Your task to perform on an android device: Set the phone to "Do not disturb". Image 0: 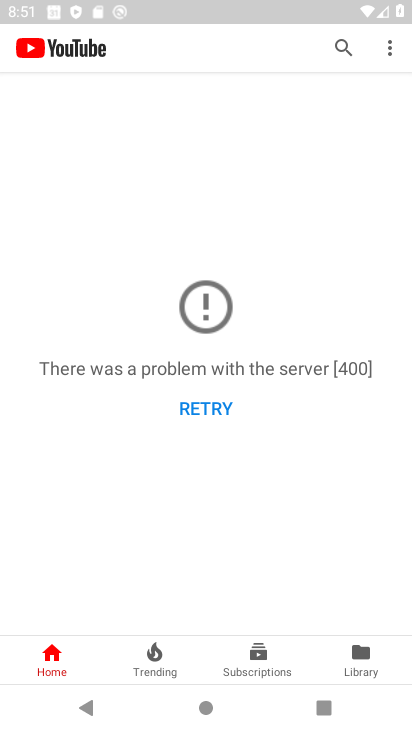
Step 0: press back button
Your task to perform on an android device: Set the phone to "Do not disturb". Image 1: 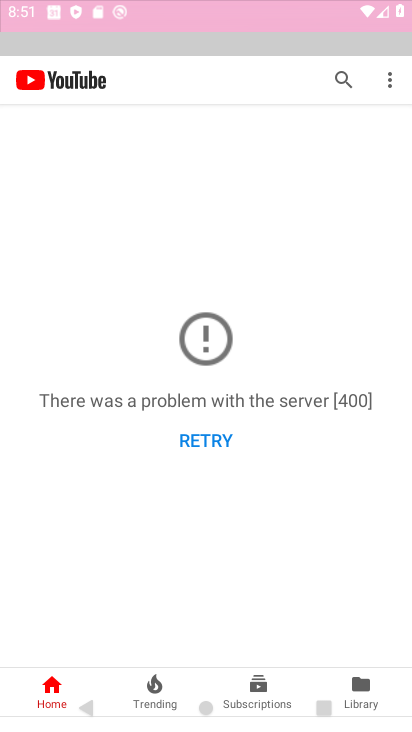
Step 1: press home button
Your task to perform on an android device: Set the phone to "Do not disturb". Image 2: 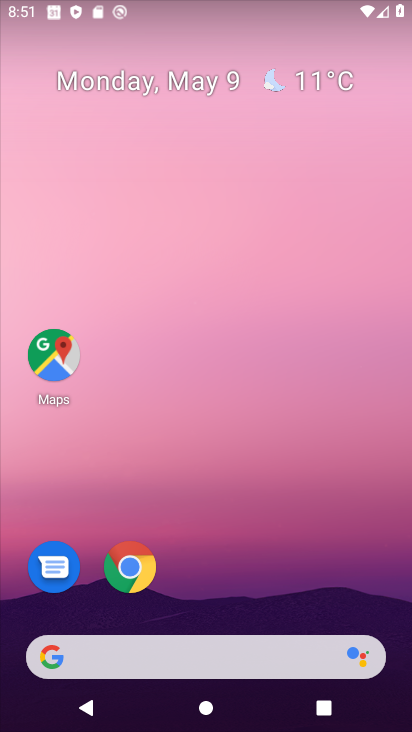
Step 2: drag from (192, 621) to (314, 40)
Your task to perform on an android device: Set the phone to "Do not disturb". Image 3: 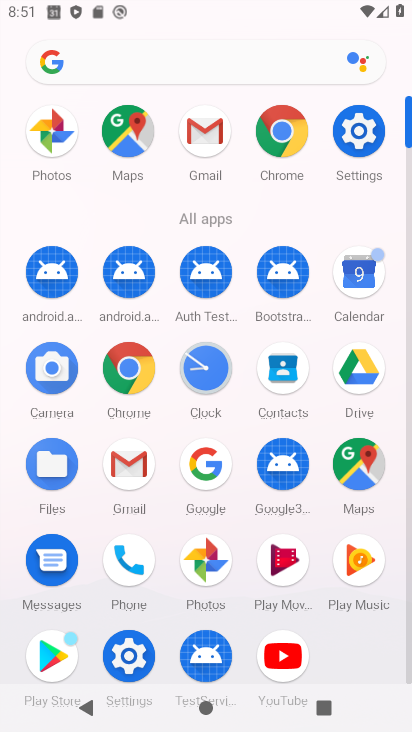
Step 3: click (129, 663)
Your task to perform on an android device: Set the phone to "Do not disturb". Image 4: 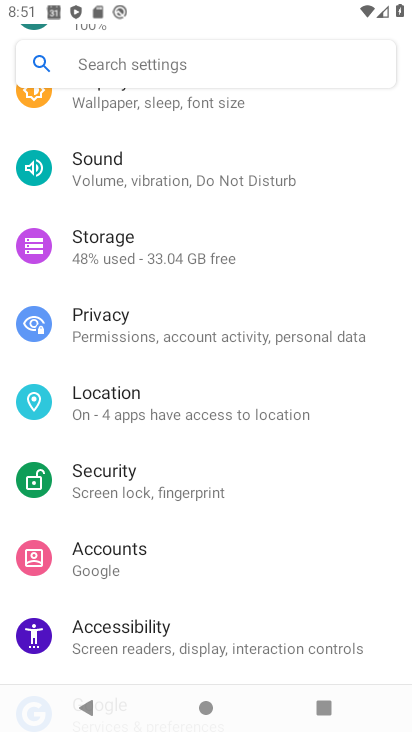
Step 4: drag from (213, 122) to (213, 462)
Your task to perform on an android device: Set the phone to "Do not disturb". Image 5: 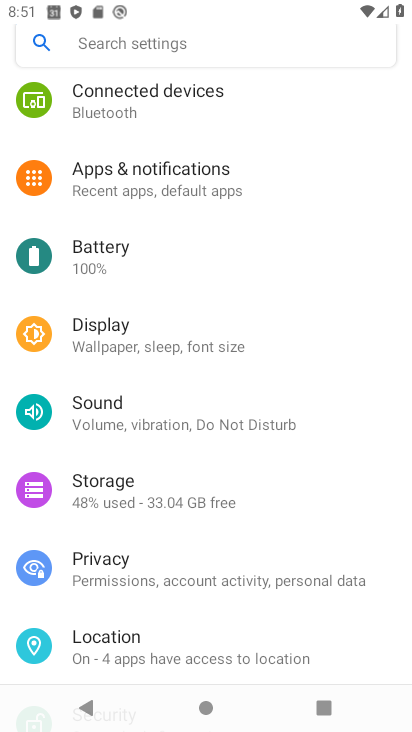
Step 5: click (228, 203)
Your task to perform on an android device: Set the phone to "Do not disturb". Image 6: 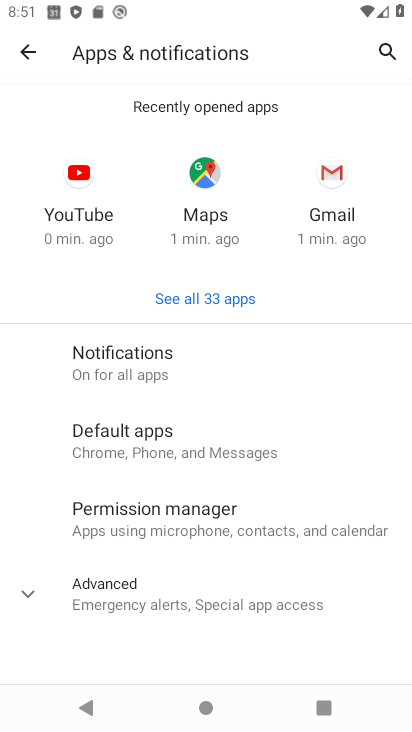
Step 6: drag from (239, 593) to (361, 290)
Your task to perform on an android device: Set the phone to "Do not disturb". Image 7: 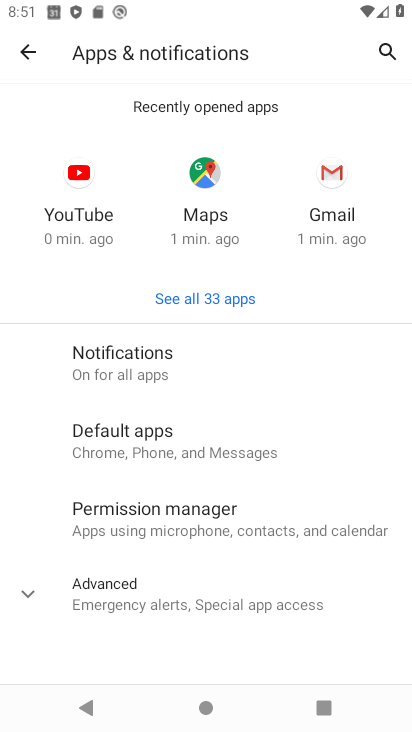
Step 7: click (183, 368)
Your task to perform on an android device: Set the phone to "Do not disturb". Image 8: 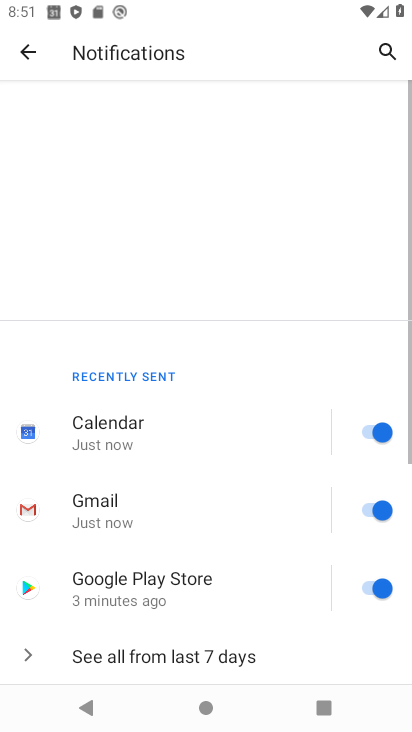
Step 8: drag from (184, 625) to (329, 3)
Your task to perform on an android device: Set the phone to "Do not disturb". Image 9: 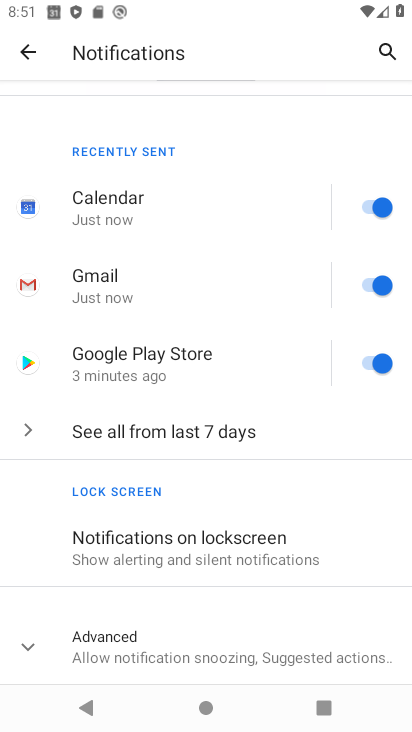
Step 9: click (150, 647)
Your task to perform on an android device: Set the phone to "Do not disturb". Image 10: 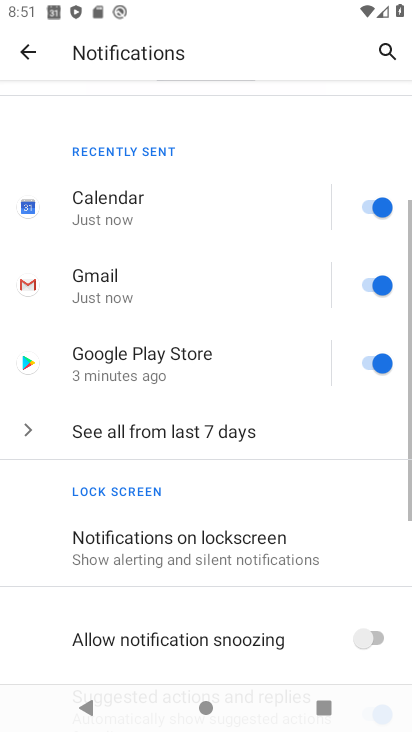
Step 10: drag from (154, 643) to (291, 79)
Your task to perform on an android device: Set the phone to "Do not disturb". Image 11: 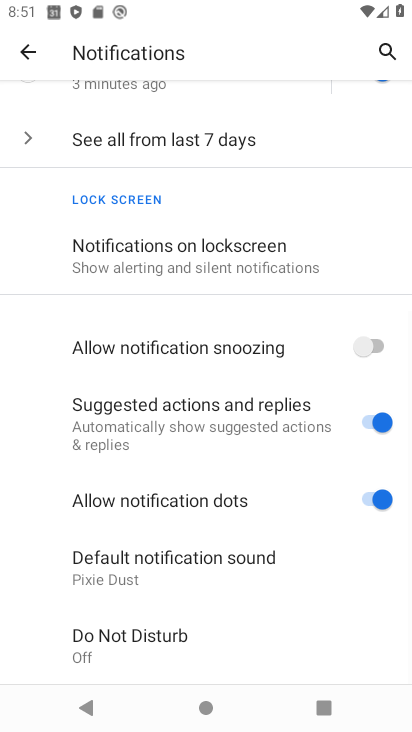
Step 11: click (168, 644)
Your task to perform on an android device: Set the phone to "Do not disturb". Image 12: 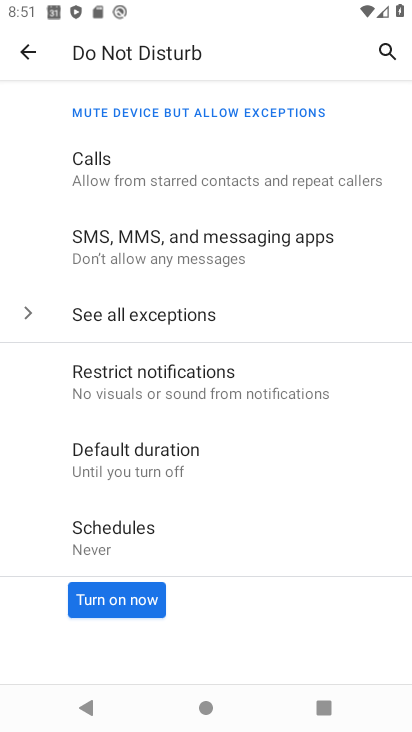
Step 12: click (125, 617)
Your task to perform on an android device: Set the phone to "Do not disturb". Image 13: 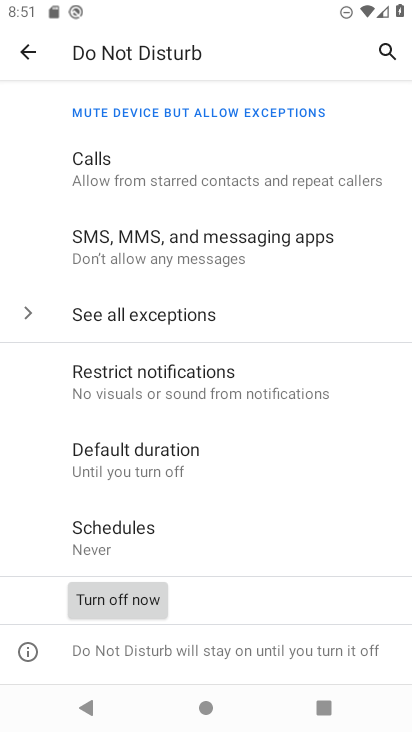
Step 13: task complete